Your task to perform on an android device: delete browsing data in the chrome app Image 0: 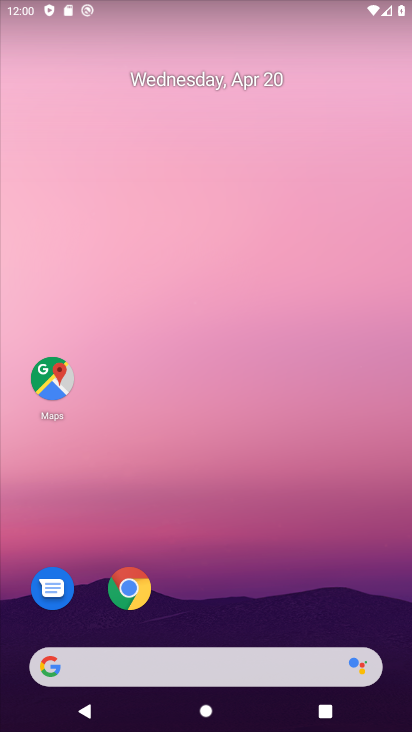
Step 0: drag from (193, 638) to (208, 24)
Your task to perform on an android device: delete browsing data in the chrome app Image 1: 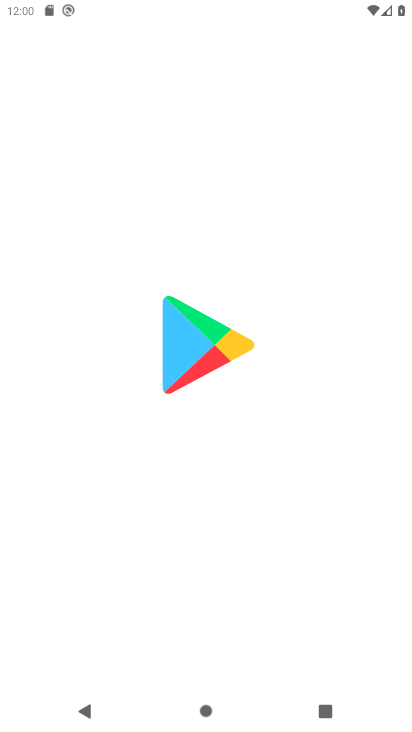
Step 1: press home button
Your task to perform on an android device: delete browsing data in the chrome app Image 2: 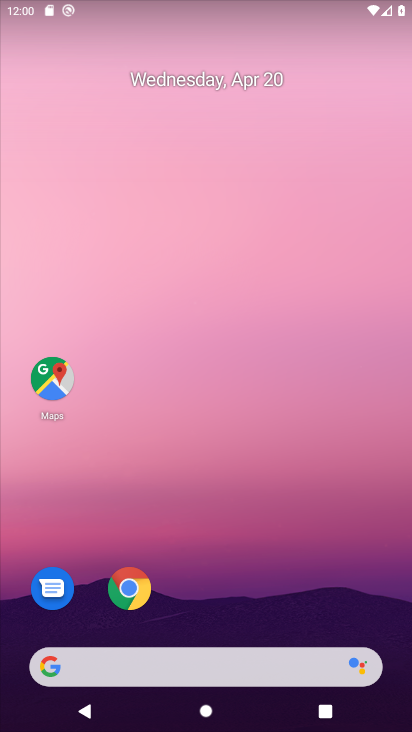
Step 2: click (144, 584)
Your task to perform on an android device: delete browsing data in the chrome app Image 3: 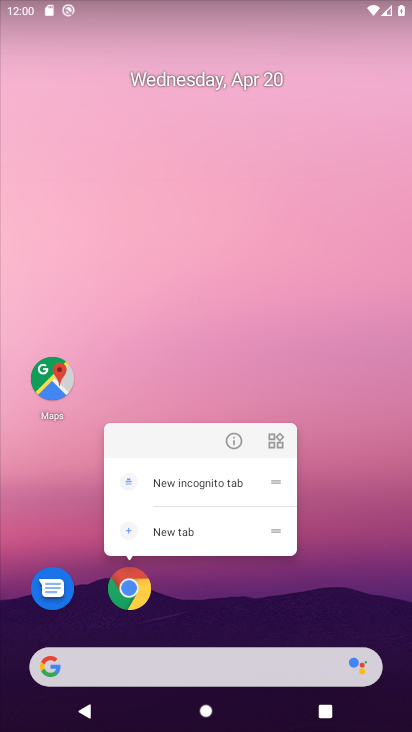
Step 3: click (113, 583)
Your task to perform on an android device: delete browsing data in the chrome app Image 4: 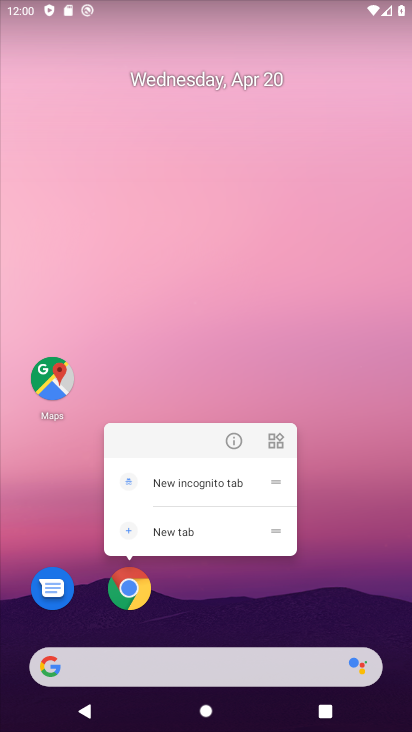
Step 4: click (113, 583)
Your task to perform on an android device: delete browsing data in the chrome app Image 5: 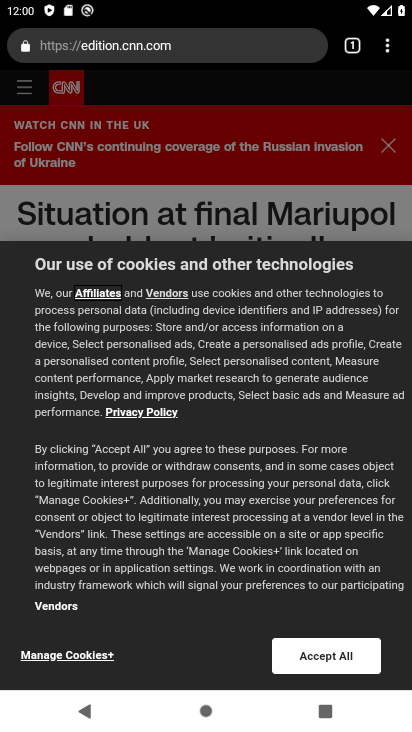
Step 5: click (382, 56)
Your task to perform on an android device: delete browsing data in the chrome app Image 6: 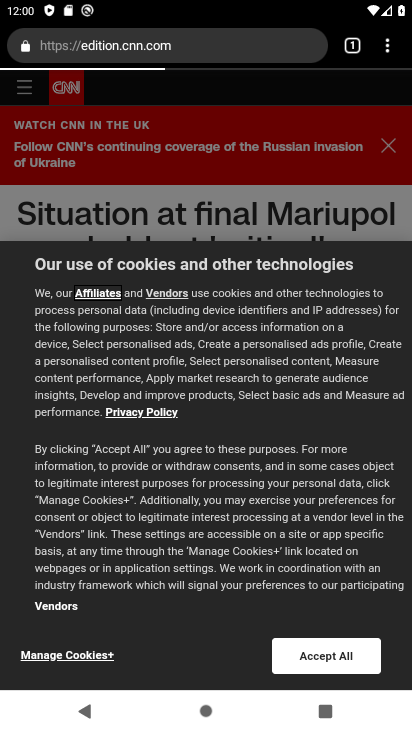
Step 6: click (379, 56)
Your task to perform on an android device: delete browsing data in the chrome app Image 7: 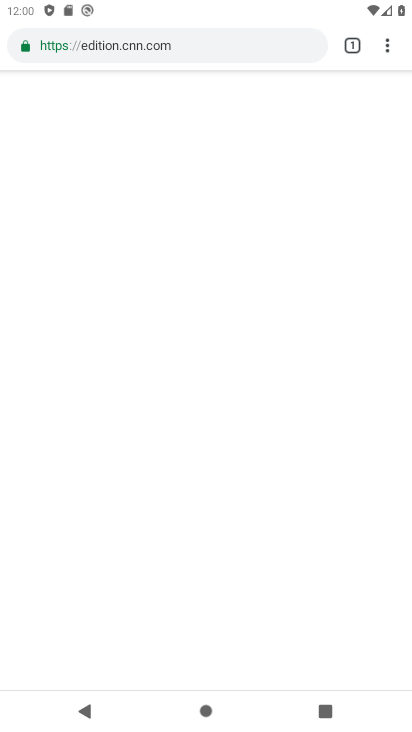
Step 7: click (379, 56)
Your task to perform on an android device: delete browsing data in the chrome app Image 8: 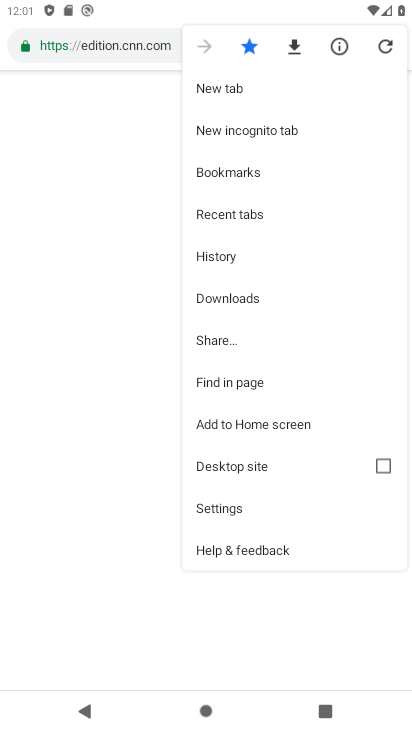
Step 8: click (218, 261)
Your task to perform on an android device: delete browsing data in the chrome app Image 9: 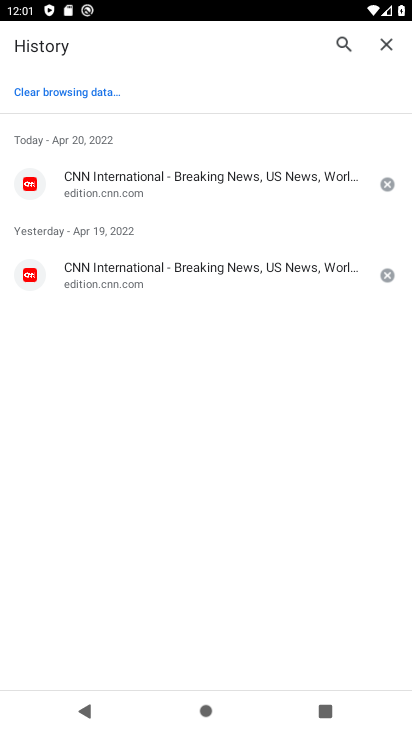
Step 9: click (72, 100)
Your task to perform on an android device: delete browsing data in the chrome app Image 10: 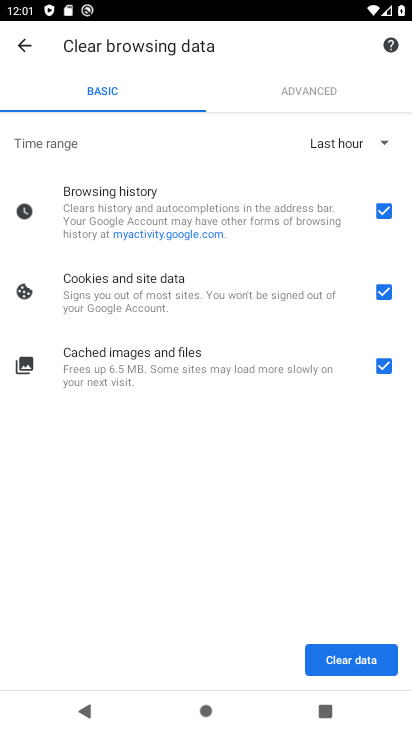
Step 10: click (376, 670)
Your task to perform on an android device: delete browsing data in the chrome app Image 11: 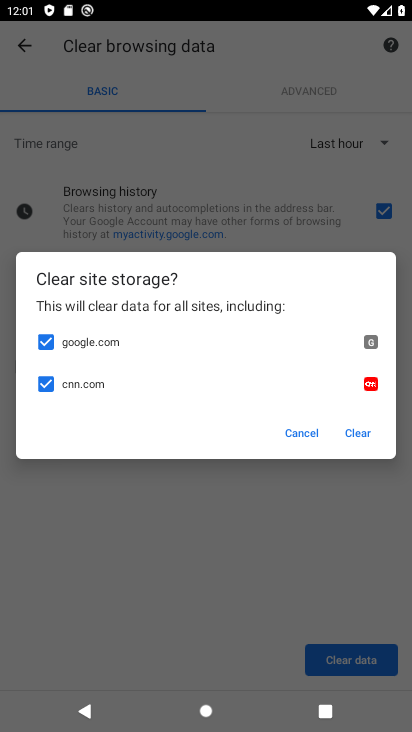
Step 11: click (360, 429)
Your task to perform on an android device: delete browsing data in the chrome app Image 12: 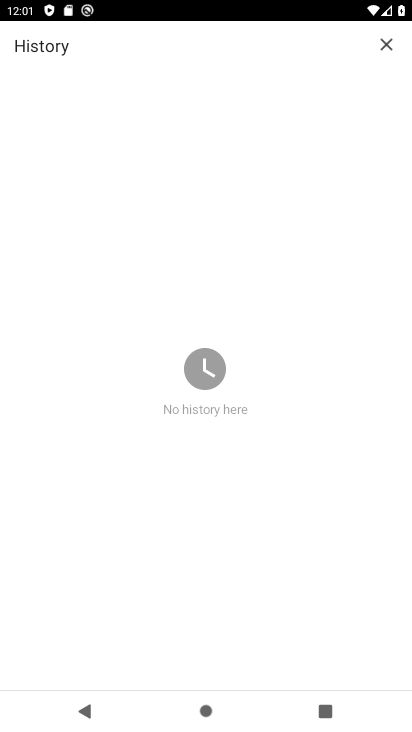
Step 12: task complete